Your task to perform on an android device: open the mobile data screen to see how much data has been used Image 0: 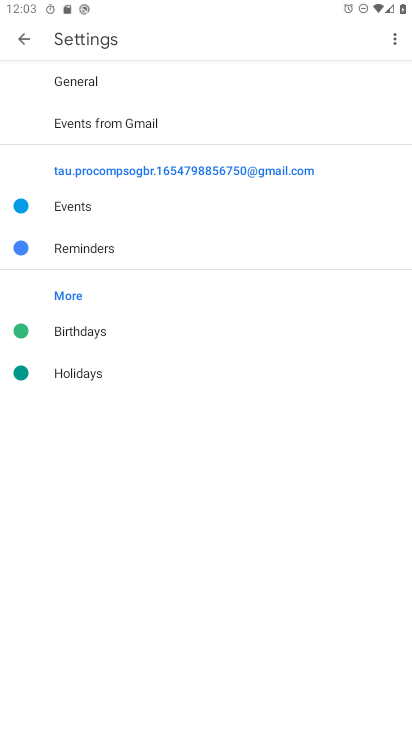
Step 0: press home button
Your task to perform on an android device: open the mobile data screen to see how much data has been used Image 1: 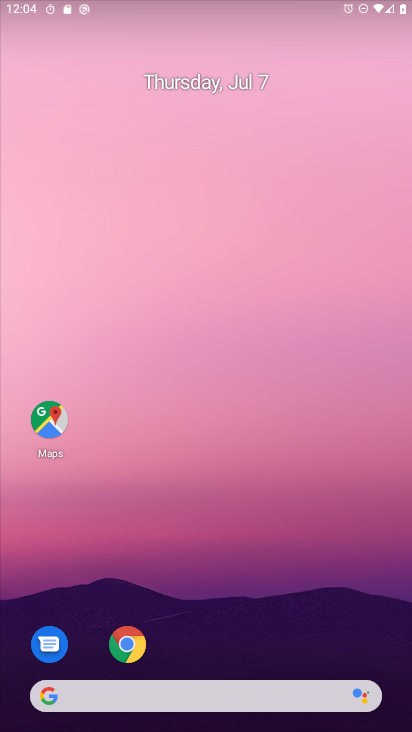
Step 1: drag from (219, 647) to (275, 80)
Your task to perform on an android device: open the mobile data screen to see how much data has been used Image 2: 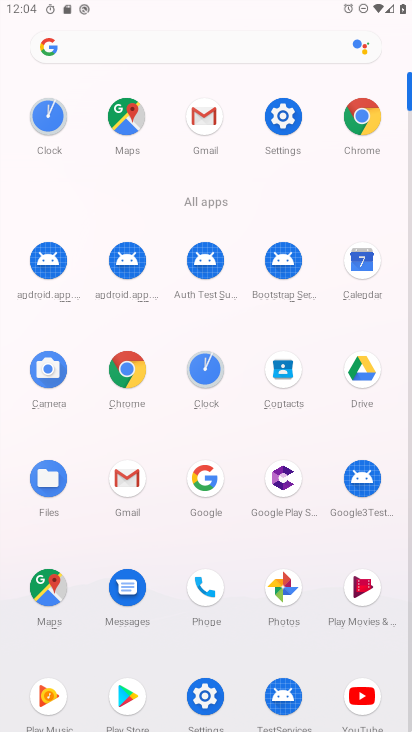
Step 2: click (205, 697)
Your task to perform on an android device: open the mobile data screen to see how much data has been used Image 3: 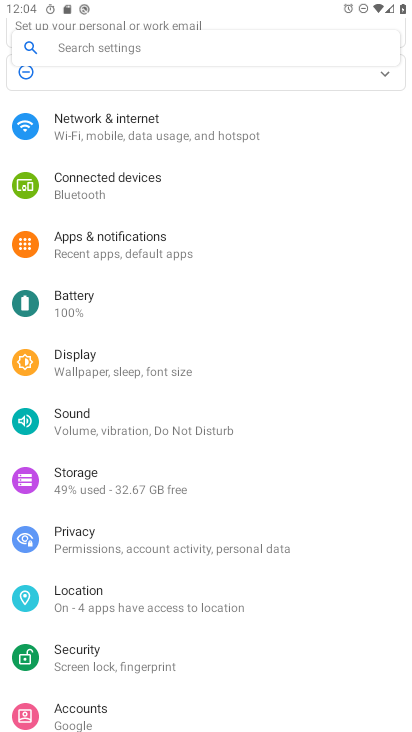
Step 3: click (144, 128)
Your task to perform on an android device: open the mobile data screen to see how much data has been used Image 4: 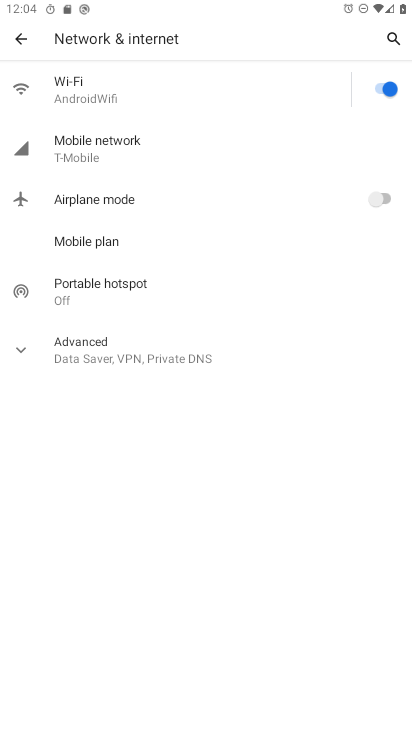
Step 4: click (120, 145)
Your task to perform on an android device: open the mobile data screen to see how much data has been used Image 5: 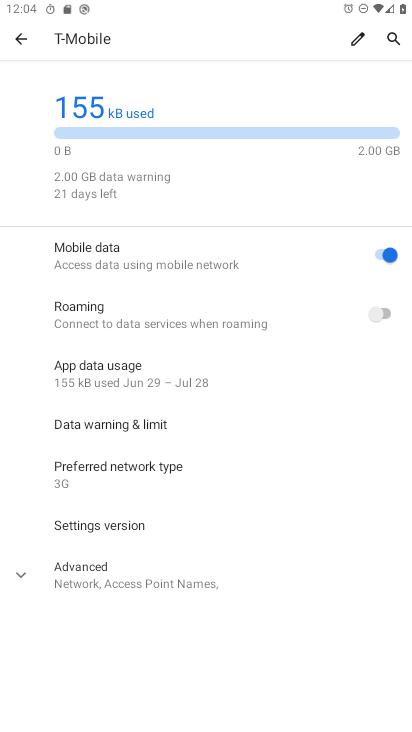
Step 5: task complete